Your task to perform on an android device: turn on data saver in the chrome app Image 0: 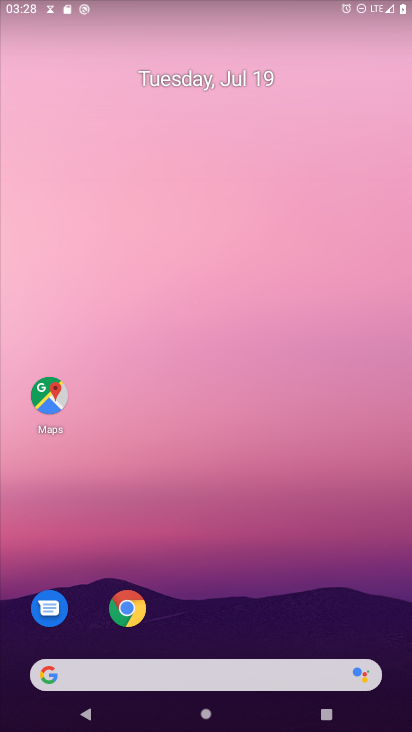
Step 0: drag from (267, 604) to (223, 38)
Your task to perform on an android device: turn on data saver in the chrome app Image 1: 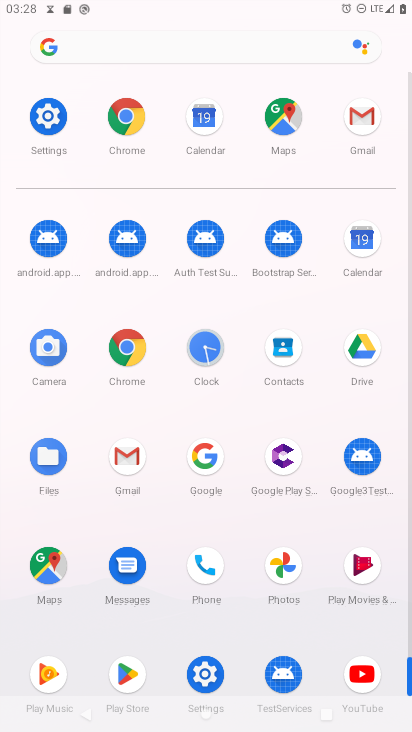
Step 1: click (131, 351)
Your task to perform on an android device: turn on data saver in the chrome app Image 2: 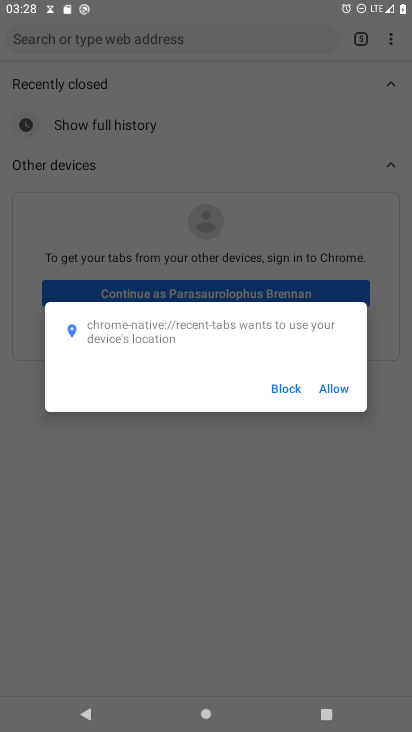
Step 2: click (285, 388)
Your task to perform on an android device: turn on data saver in the chrome app Image 3: 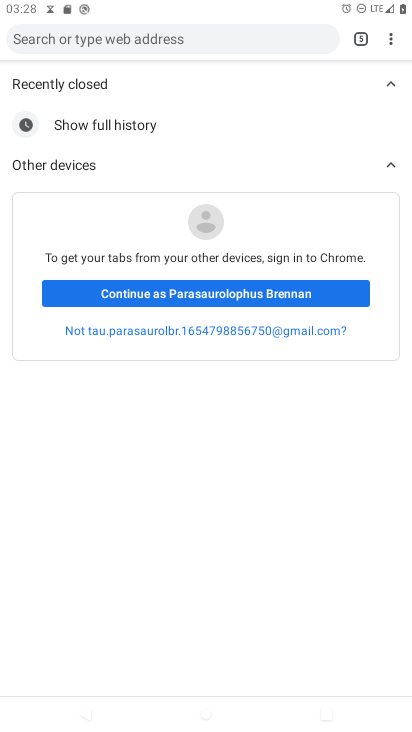
Step 3: click (394, 32)
Your task to perform on an android device: turn on data saver in the chrome app Image 4: 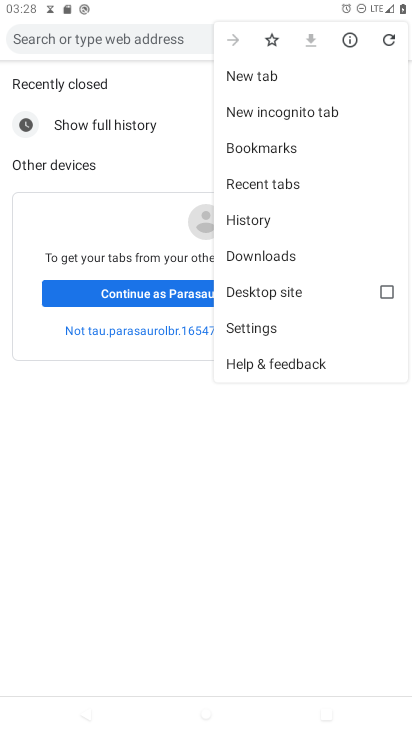
Step 4: click (294, 330)
Your task to perform on an android device: turn on data saver in the chrome app Image 5: 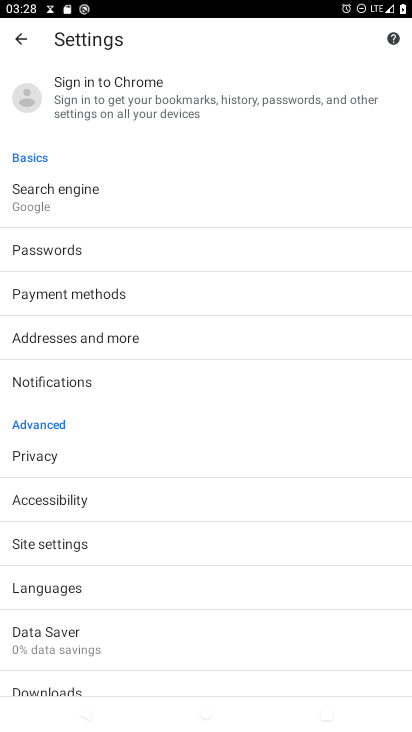
Step 5: click (96, 634)
Your task to perform on an android device: turn on data saver in the chrome app Image 6: 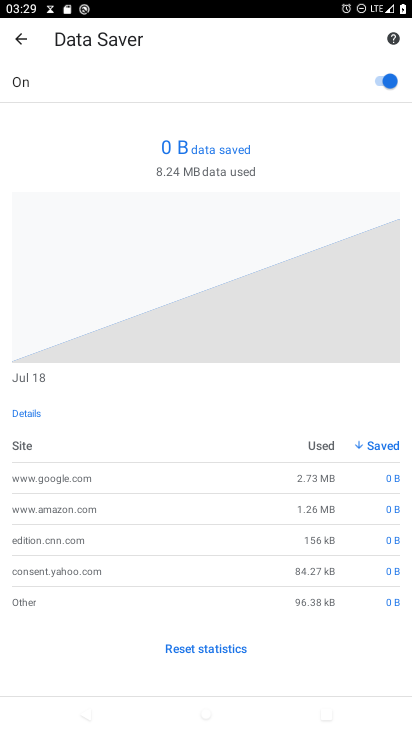
Step 6: task complete